Your task to perform on an android device: Go to Google maps Image 0: 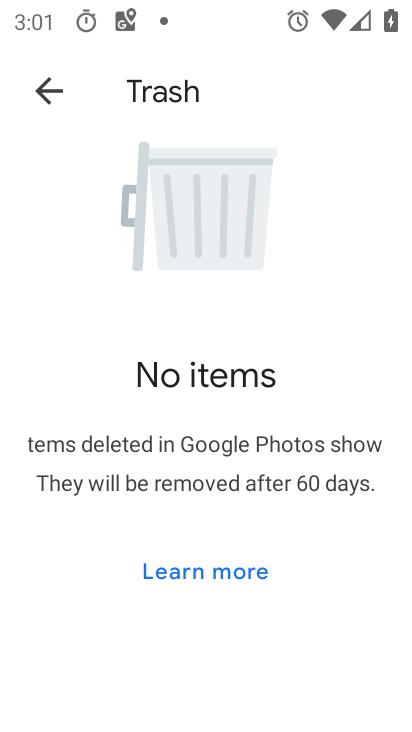
Step 0: press home button
Your task to perform on an android device: Go to Google maps Image 1: 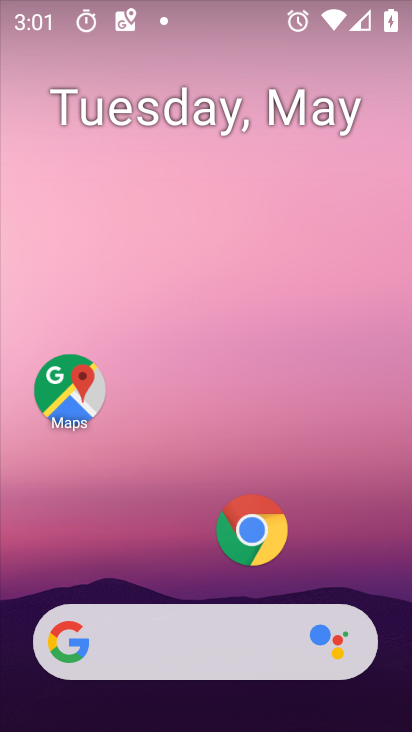
Step 1: drag from (223, 591) to (40, 1)
Your task to perform on an android device: Go to Google maps Image 2: 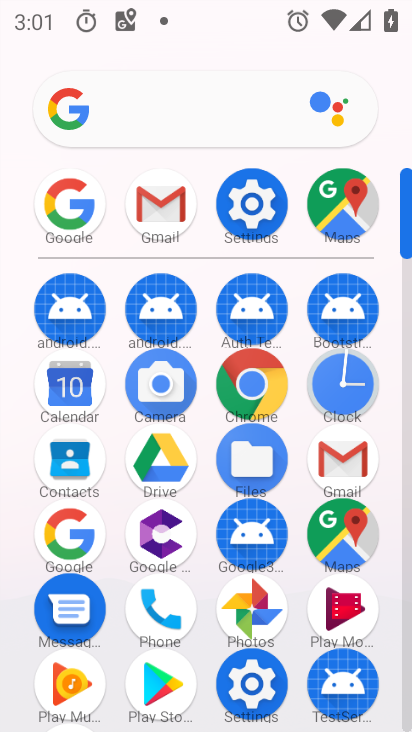
Step 2: click (347, 530)
Your task to perform on an android device: Go to Google maps Image 3: 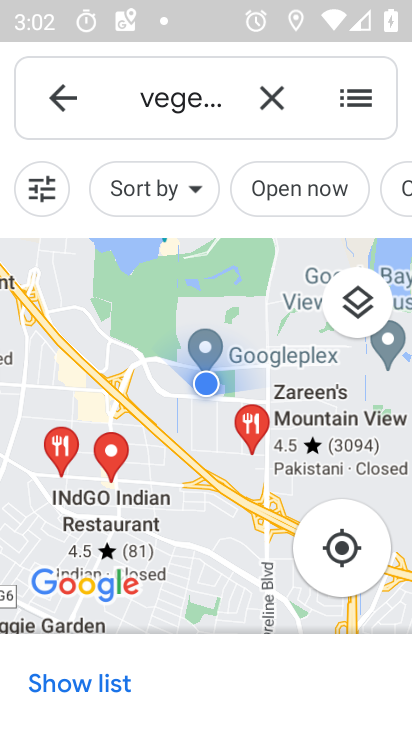
Step 3: task complete